Your task to perform on an android device: What's the weather today? Image 0: 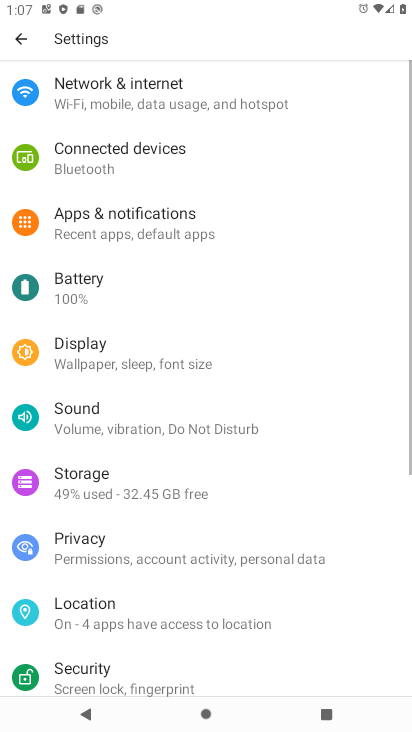
Step 0: press home button
Your task to perform on an android device: What's the weather today? Image 1: 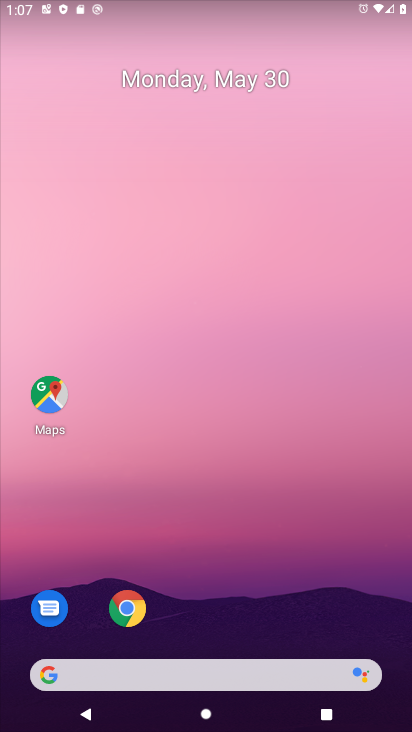
Step 1: click (243, 663)
Your task to perform on an android device: What's the weather today? Image 2: 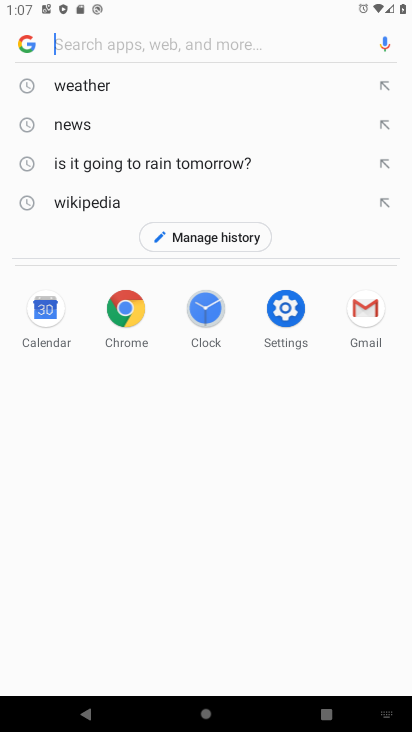
Step 2: click (151, 101)
Your task to perform on an android device: What's the weather today? Image 3: 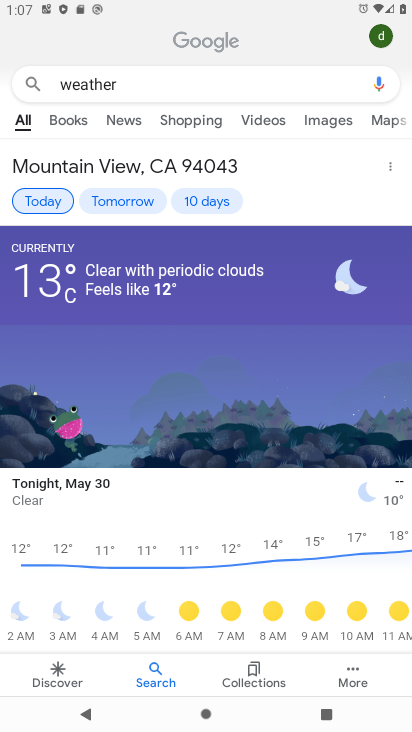
Step 3: drag from (234, 524) to (219, 227)
Your task to perform on an android device: What's the weather today? Image 4: 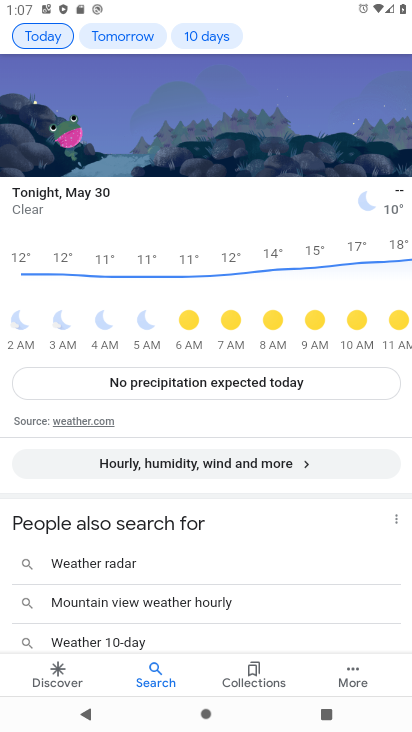
Step 4: drag from (377, 260) to (203, 249)
Your task to perform on an android device: What's the weather today? Image 5: 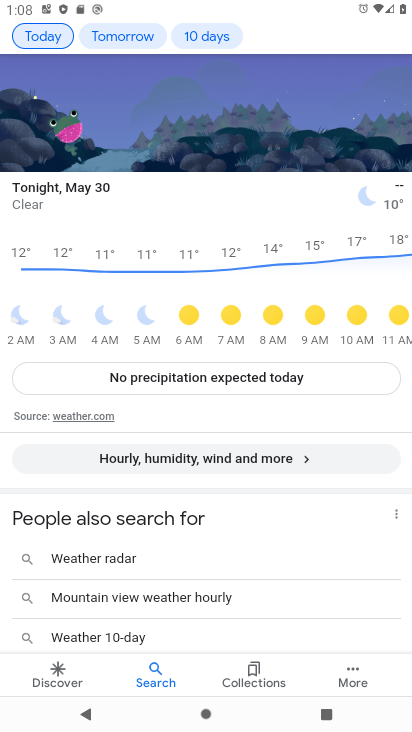
Step 5: drag from (281, 296) to (195, 248)
Your task to perform on an android device: What's the weather today? Image 6: 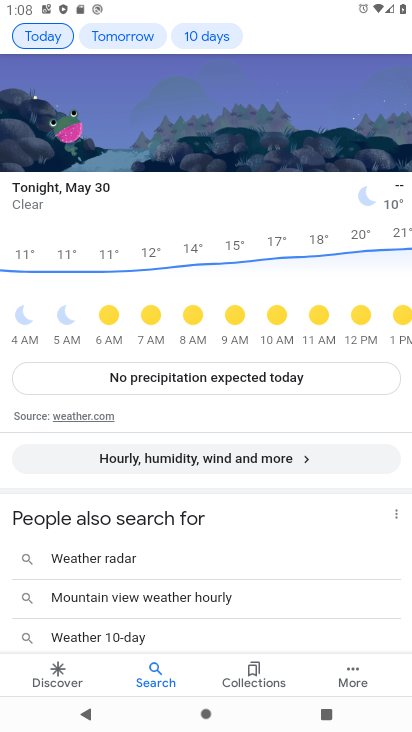
Step 6: click (158, 235)
Your task to perform on an android device: What's the weather today? Image 7: 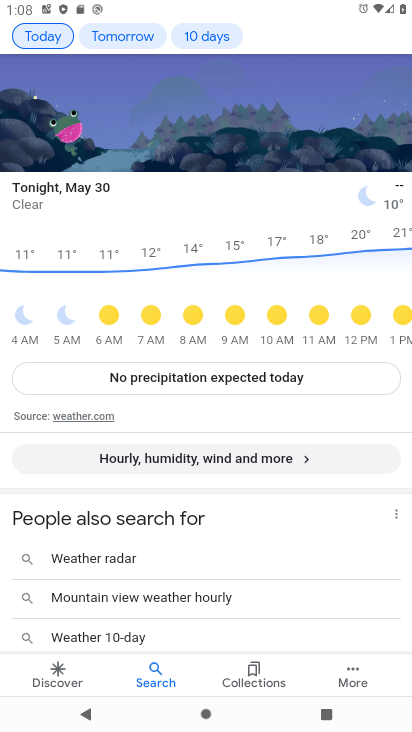
Step 7: task complete